Your task to perform on an android device: Go to settings Image 0: 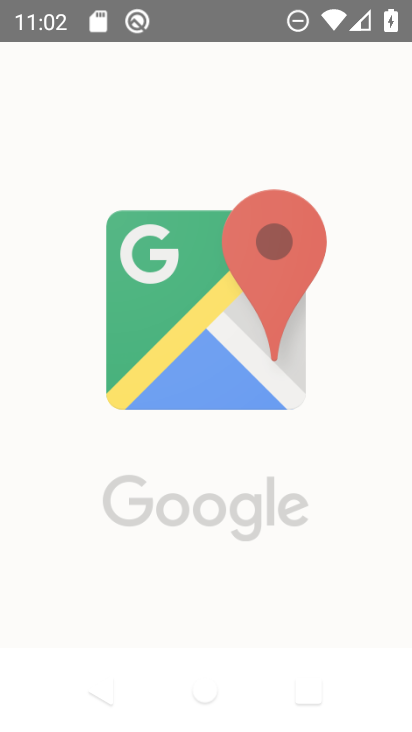
Step 0: press home button
Your task to perform on an android device: Go to settings Image 1: 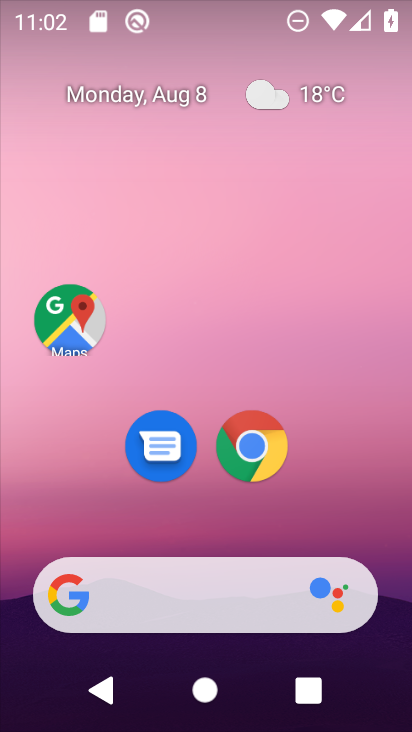
Step 1: drag from (402, 621) to (370, 166)
Your task to perform on an android device: Go to settings Image 2: 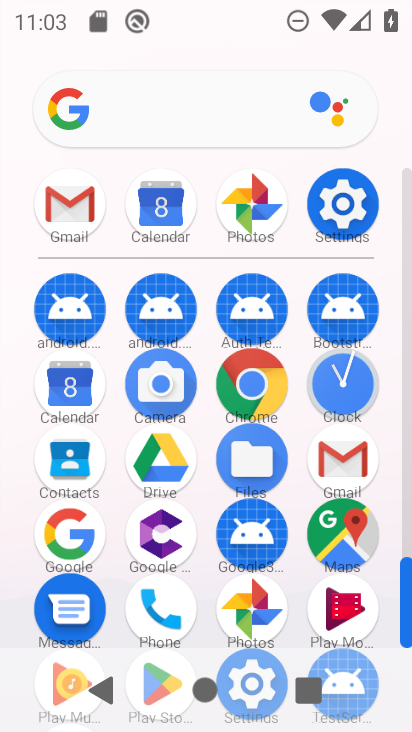
Step 2: click (406, 531)
Your task to perform on an android device: Go to settings Image 3: 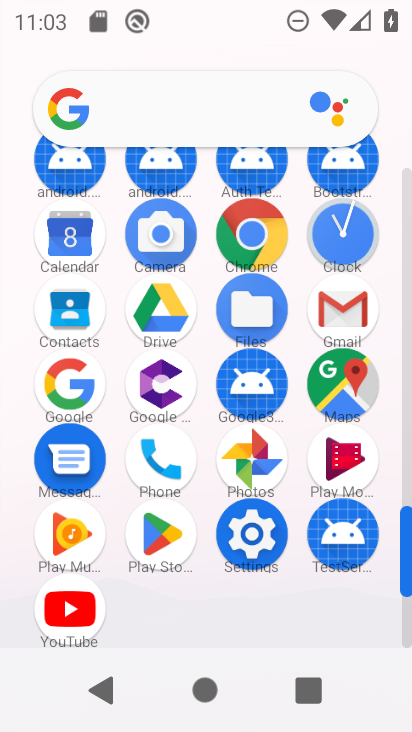
Step 3: click (252, 536)
Your task to perform on an android device: Go to settings Image 4: 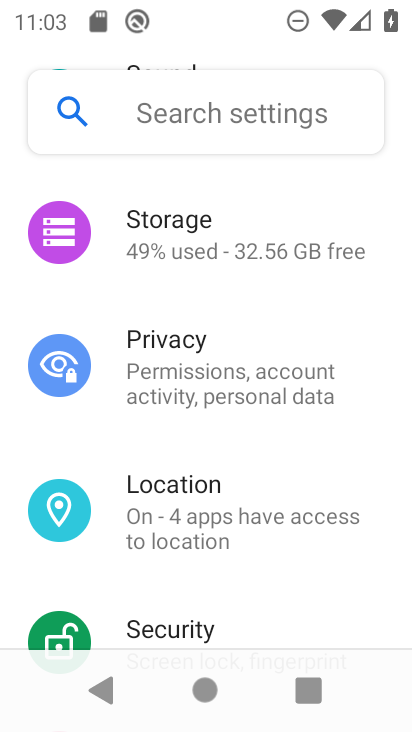
Step 4: task complete